Your task to perform on an android device: turn on the 24-hour format for clock Image 0: 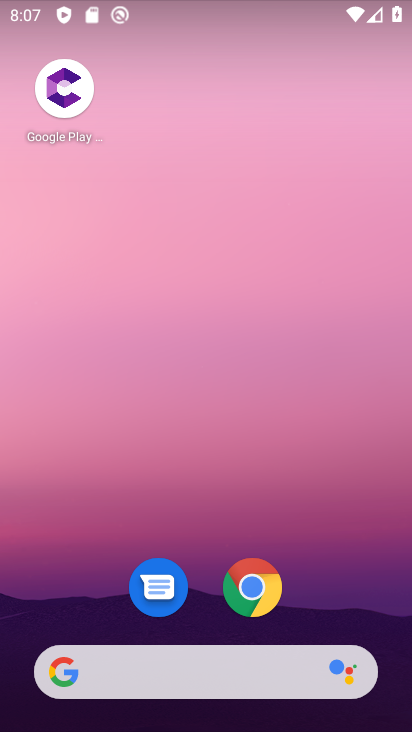
Step 0: drag from (311, 619) to (316, 18)
Your task to perform on an android device: turn on the 24-hour format for clock Image 1: 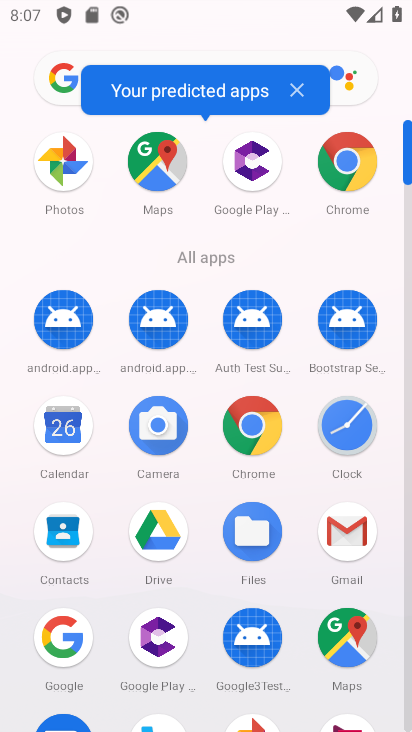
Step 1: click (339, 433)
Your task to perform on an android device: turn on the 24-hour format for clock Image 2: 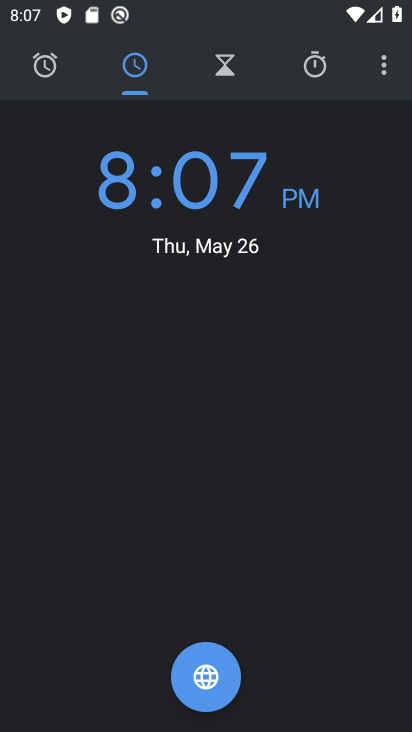
Step 2: click (372, 63)
Your task to perform on an android device: turn on the 24-hour format for clock Image 3: 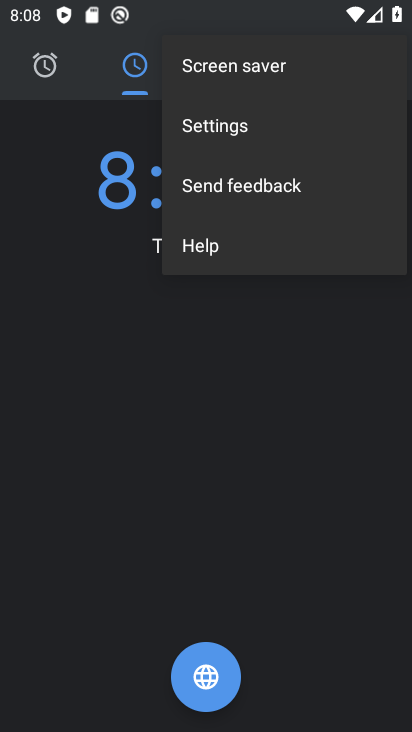
Step 3: click (327, 123)
Your task to perform on an android device: turn on the 24-hour format for clock Image 4: 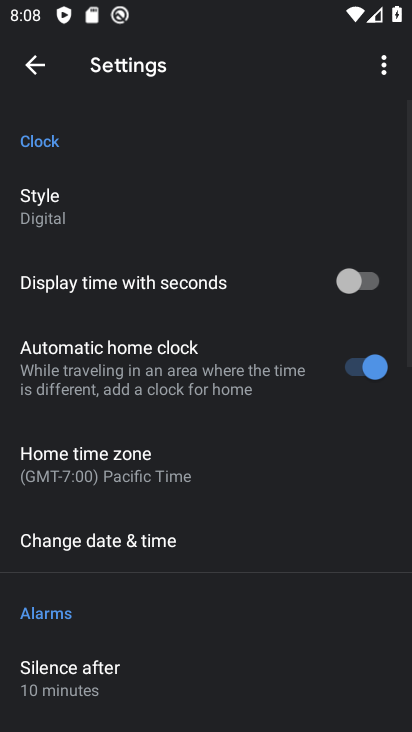
Step 4: click (116, 543)
Your task to perform on an android device: turn on the 24-hour format for clock Image 5: 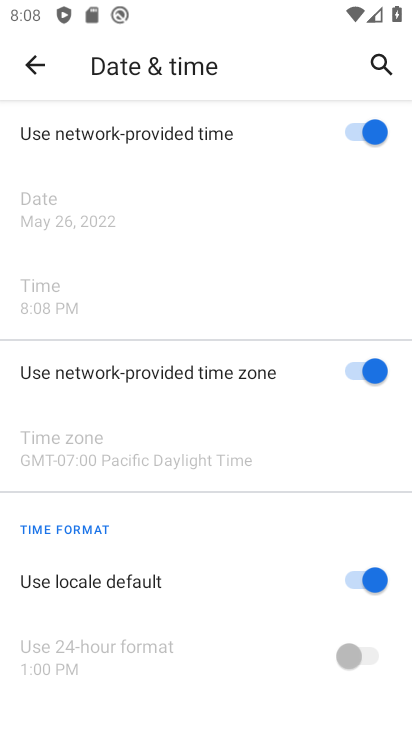
Step 5: drag from (155, 618) to (192, 119)
Your task to perform on an android device: turn on the 24-hour format for clock Image 6: 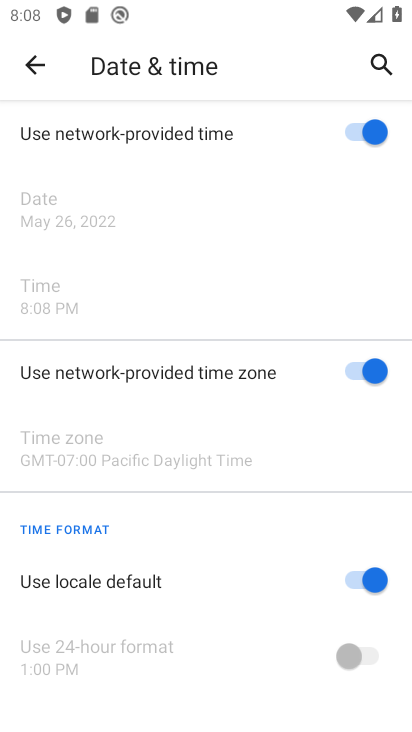
Step 6: click (343, 577)
Your task to perform on an android device: turn on the 24-hour format for clock Image 7: 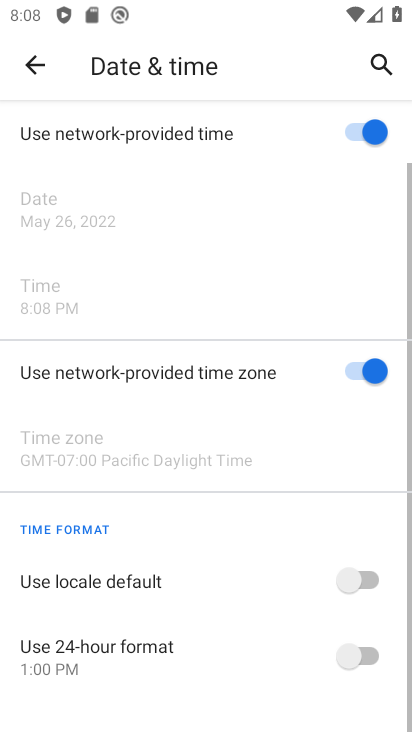
Step 7: click (361, 664)
Your task to perform on an android device: turn on the 24-hour format for clock Image 8: 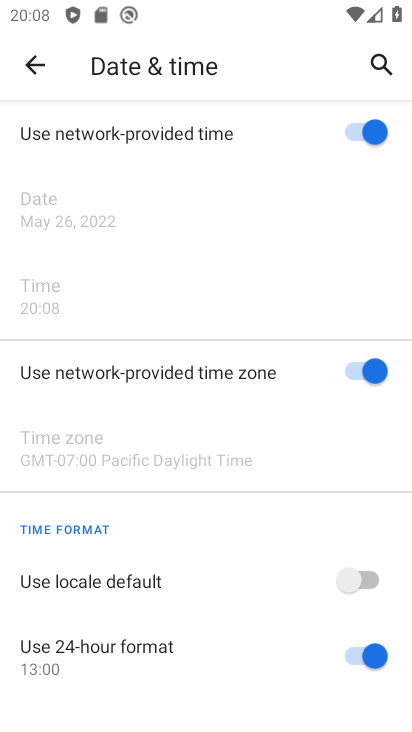
Step 8: task complete